Your task to perform on an android device: Open CNN.com Image 0: 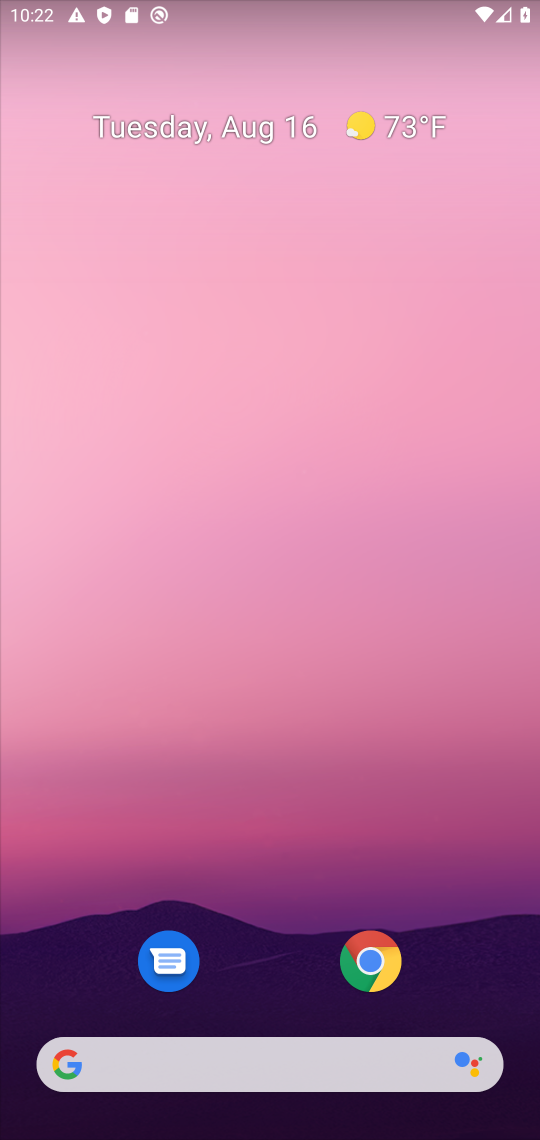
Step 0: click (304, 1066)
Your task to perform on an android device: Open CNN.com Image 1: 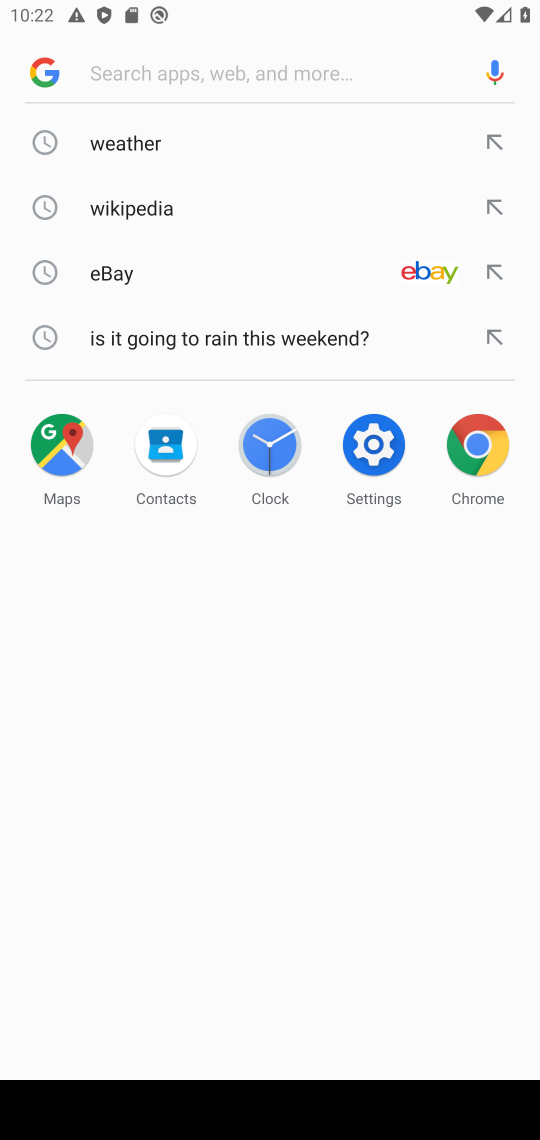
Step 1: type "CNN.com"
Your task to perform on an android device: Open CNN.com Image 2: 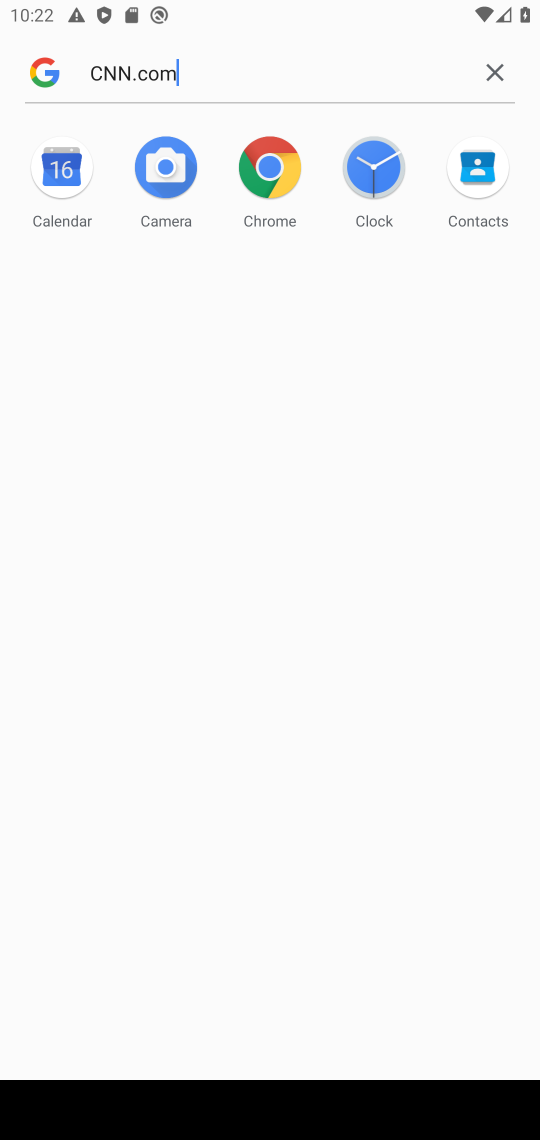
Step 2: press enter
Your task to perform on an android device: Open CNN.com Image 3: 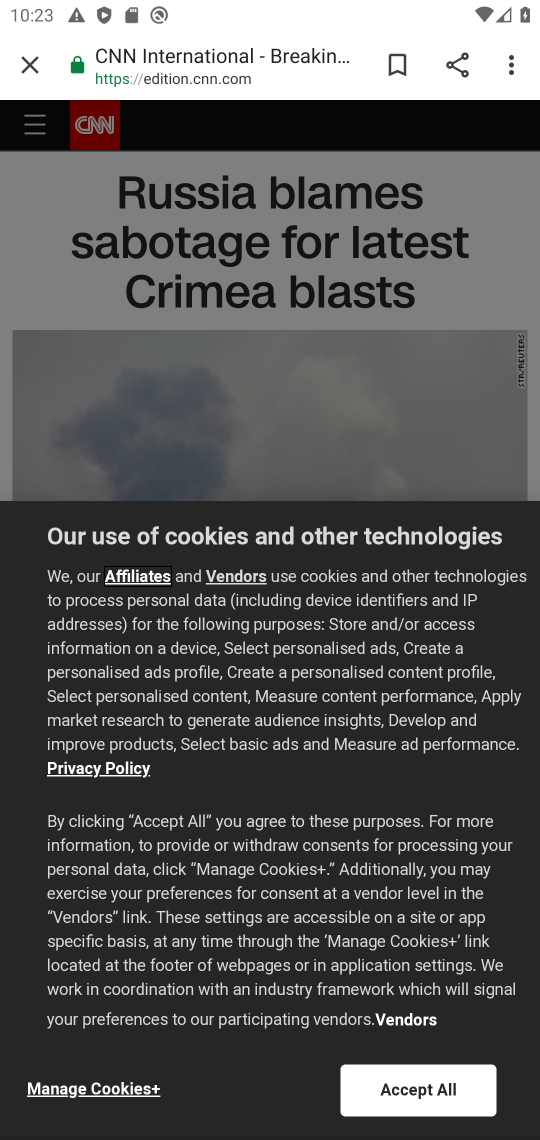
Step 3: click (378, 1083)
Your task to perform on an android device: Open CNN.com Image 4: 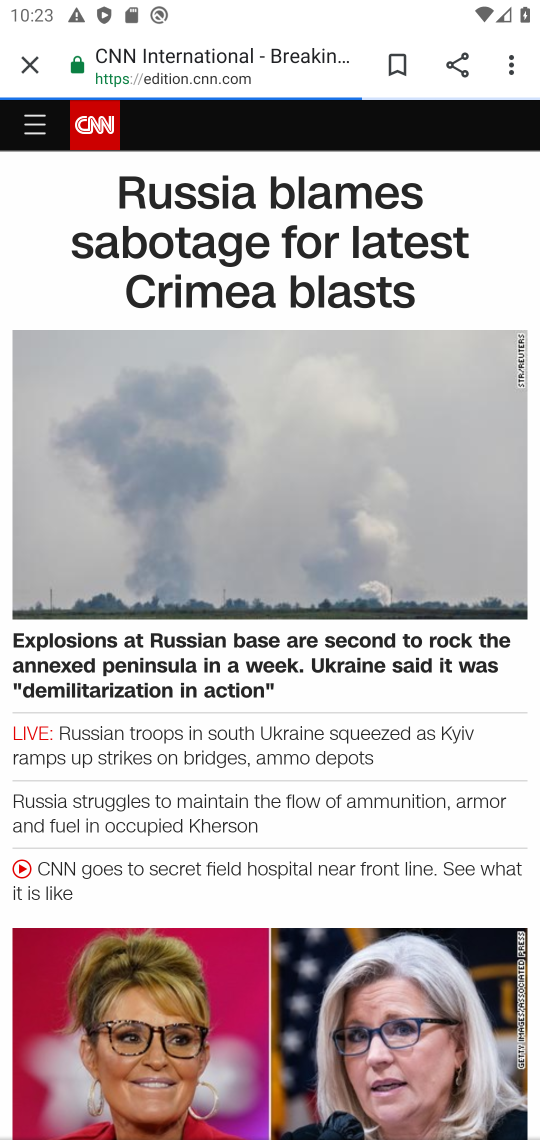
Step 4: task complete